Your task to perform on an android device: Open internet settings Image 0: 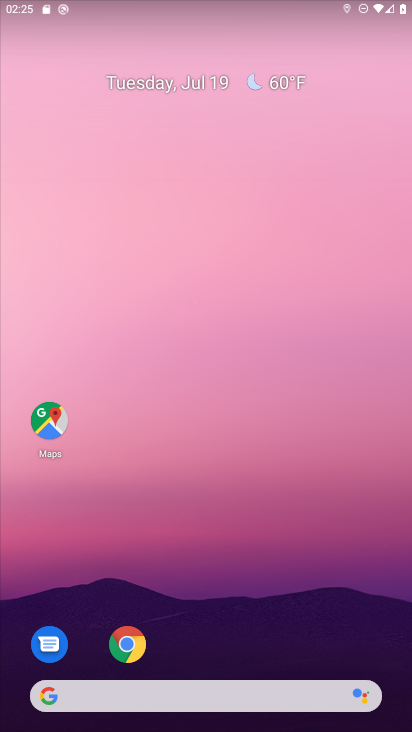
Step 0: drag from (251, 662) to (158, 26)
Your task to perform on an android device: Open internet settings Image 1: 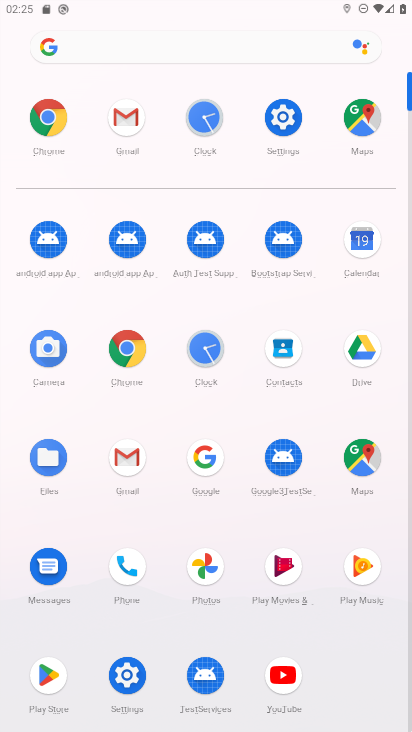
Step 1: click (282, 116)
Your task to perform on an android device: Open internet settings Image 2: 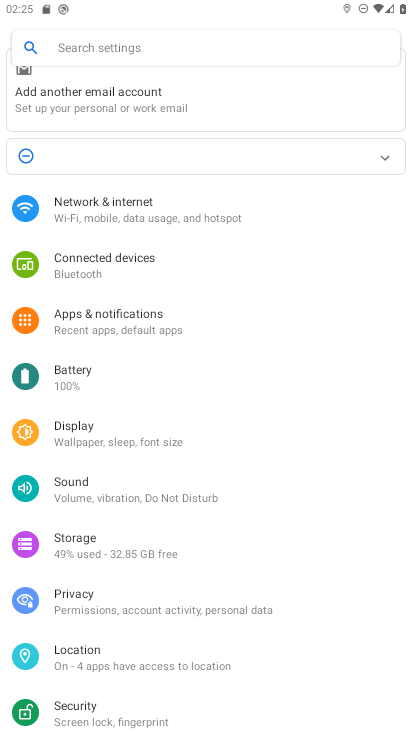
Step 2: click (84, 196)
Your task to perform on an android device: Open internet settings Image 3: 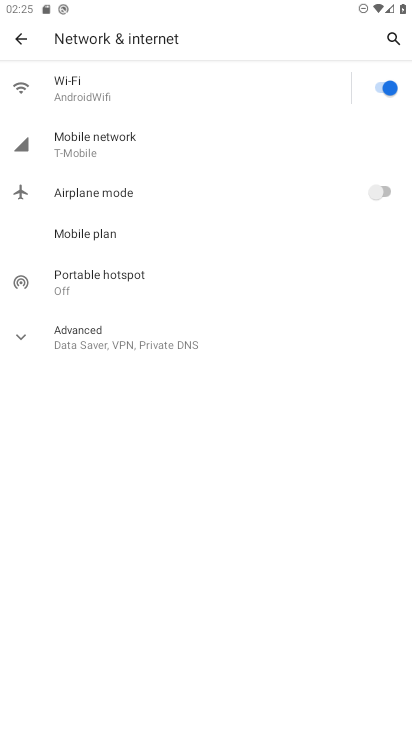
Step 3: click (88, 141)
Your task to perform on an android device: Open internet settings Image 4: 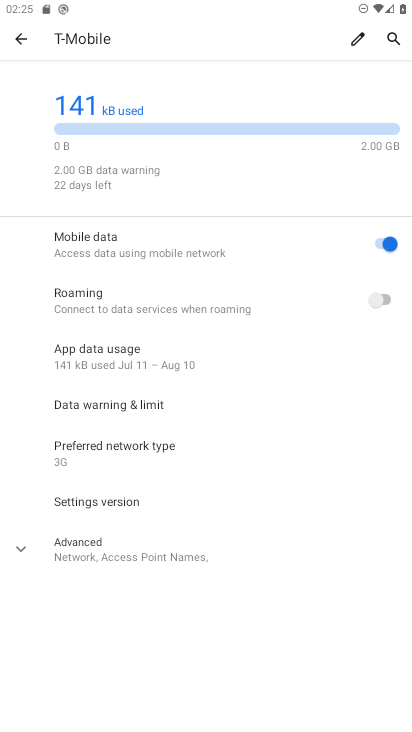
Step 4: task complete